Your task to perform on an android device: Open internet settings Image 0: 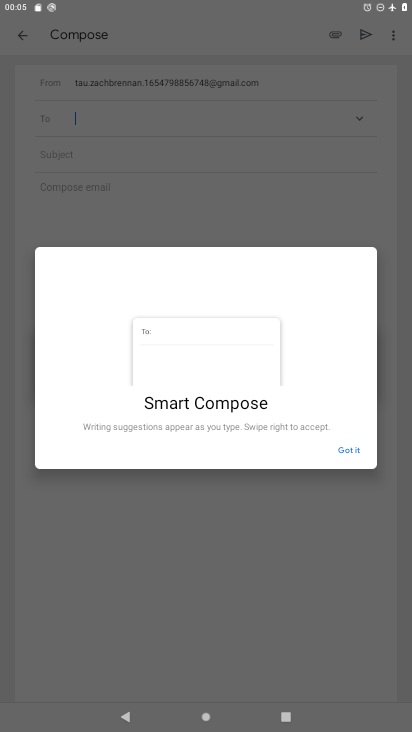
Step 0: drag from (186, 651) to (231, 202)
Your task to perform on an android device: Open internet settings Image 1: 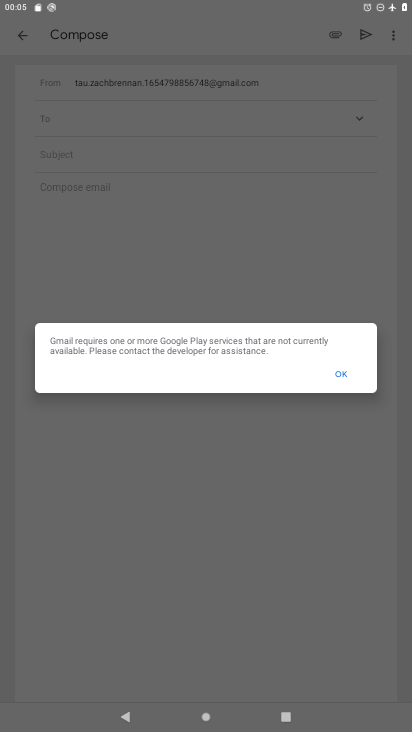
Step 1: press home button
Your task to perform on an android device: Open internet settings Image 2: 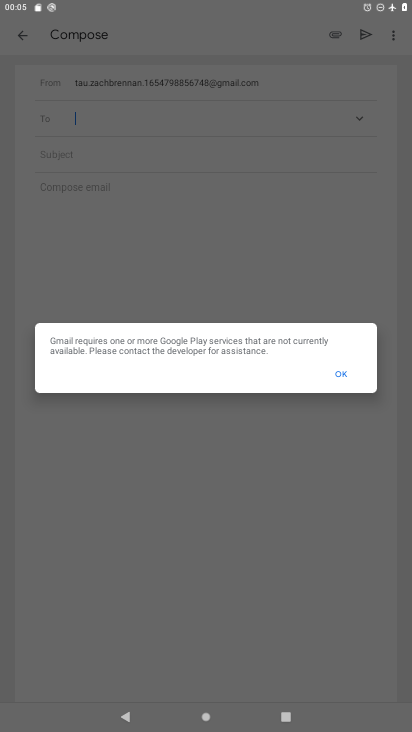
Step 2: press home button
Your task to perform on an android device: Open internet settings Image 3: 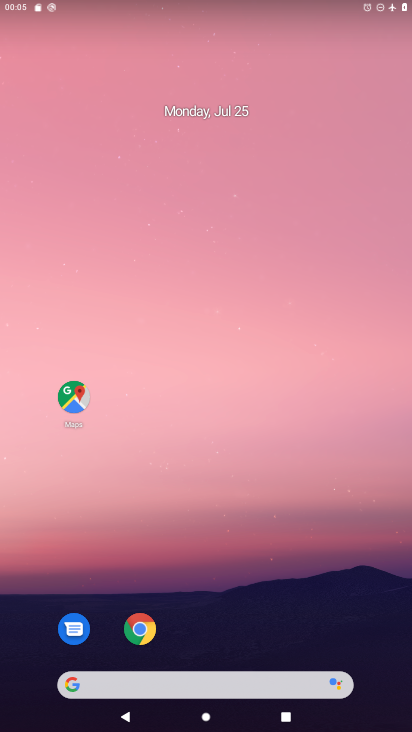
Step 3: drag from (190, 631) to (306, 102)
Your task to perform on an android device: Open internet settings Image 4: 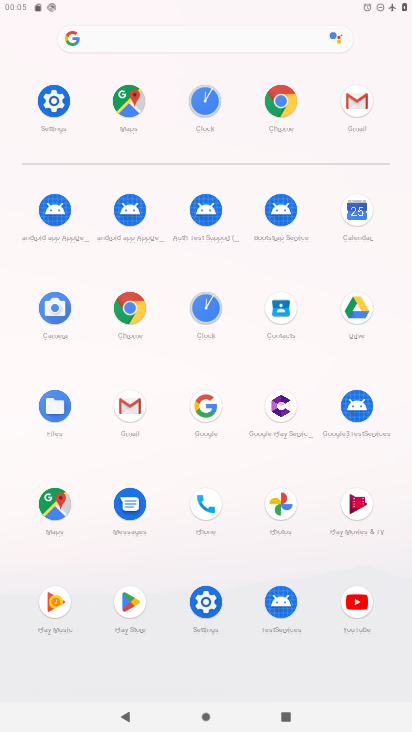
Step 4: click (200, 601)
Your task to perform on an android device: Open internet settings Image 5: 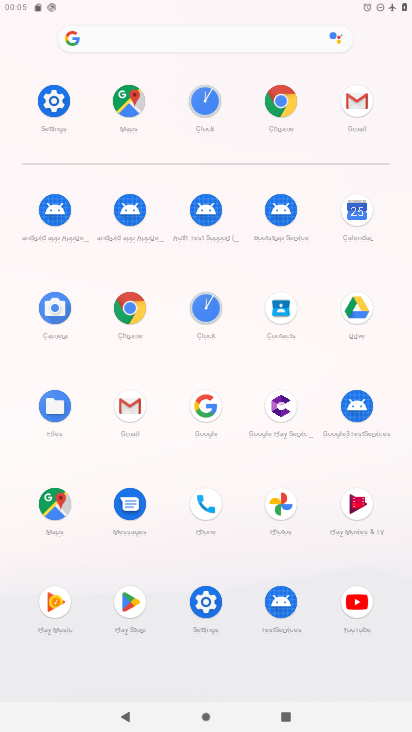
Step 5: click (201, 600)
Your task to perform on an android device: Open internet settings Image 6: 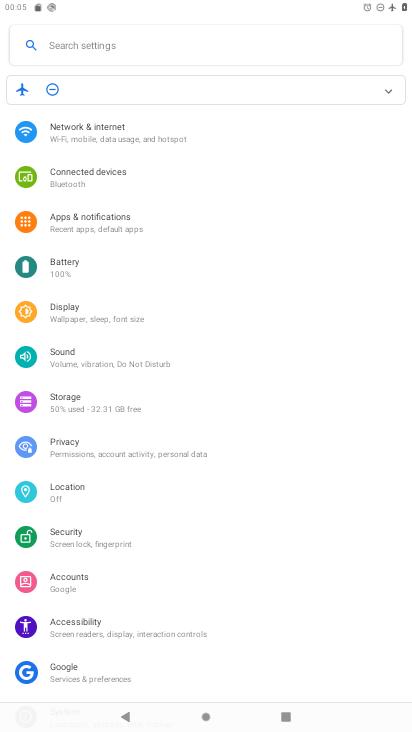
Step 6: click (112, 125)
Your task to perform on an android device: Open internet settings Image 7: 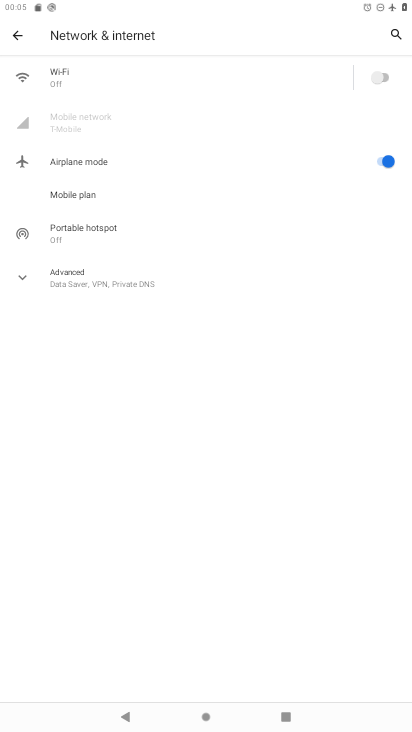
Step 7: task complete